Your task to perform on an android device: turn on location history Image 0: 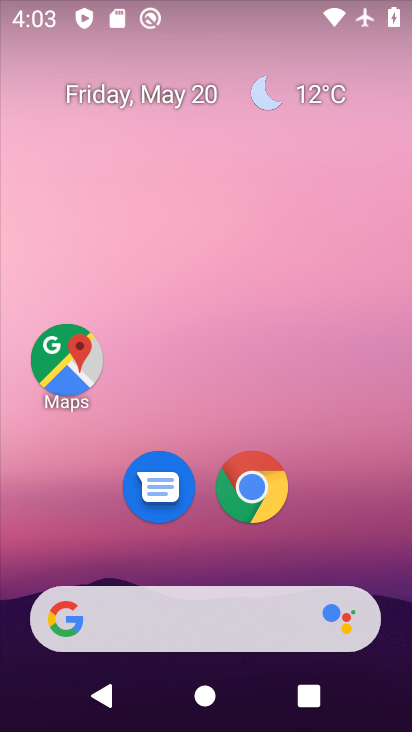
Step 0: drag from (279, 554) to (275, 134)
Your task to perform on an android device: turn on location history Image 1: 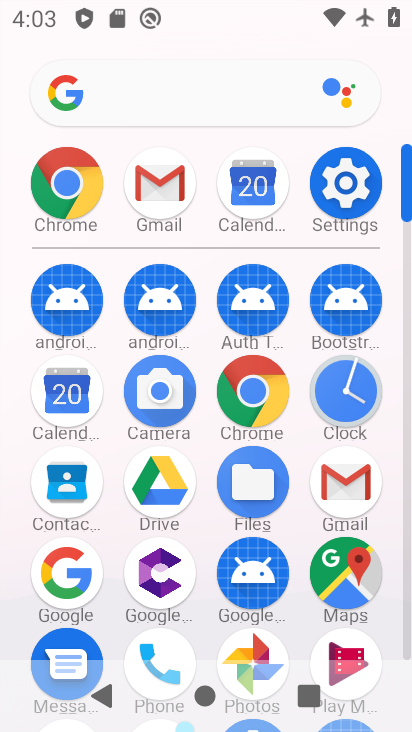
Step 1: click (353, 186)
Your task to perform on an android device: turn on location history Image 2: 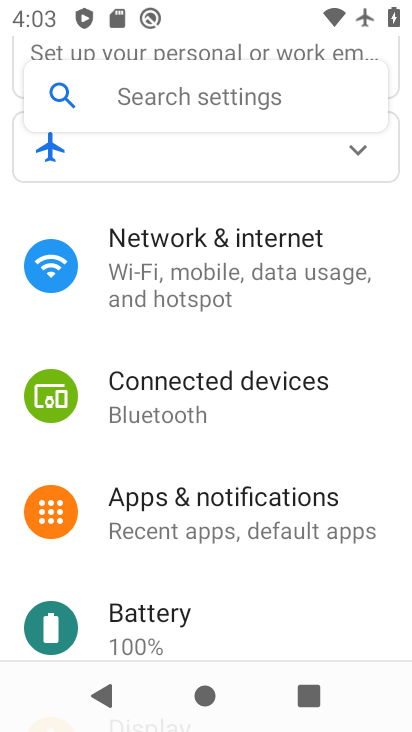
Step 2: drag from (207, 581) to (151, 24)
Your task to perform on an android device: turn on location history Image 3: 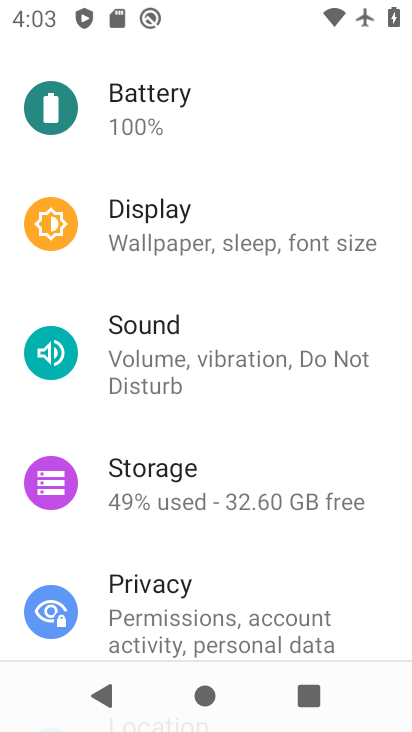
Step 3: drag from (183, 585) to (182, 71)
Your task to perform on an android device: turn on location history Image 4: 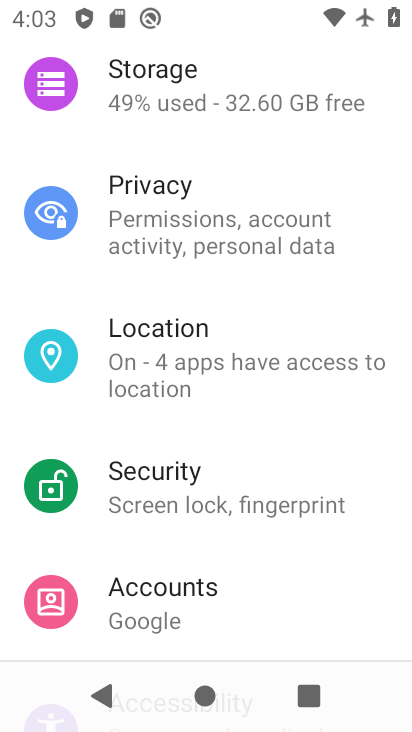
Step 4: drag from (158, 387) to (185, 0)
Your task to perform on an android device: turn on location history Image 5: 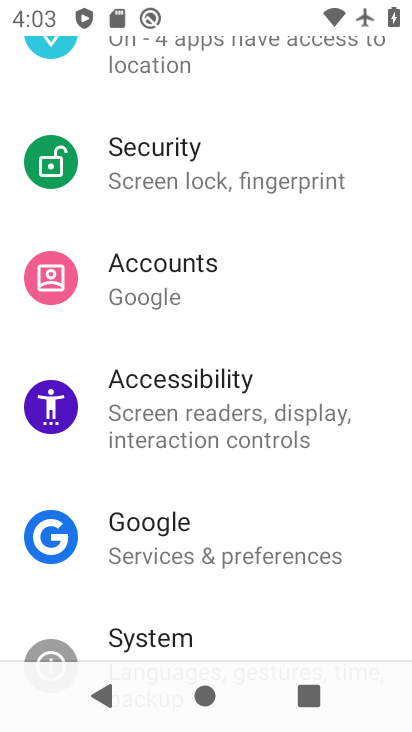
Step 5: drag from (216, 492) to (204, 47)
Your task to perform on an android device: turn on location history Image 6: 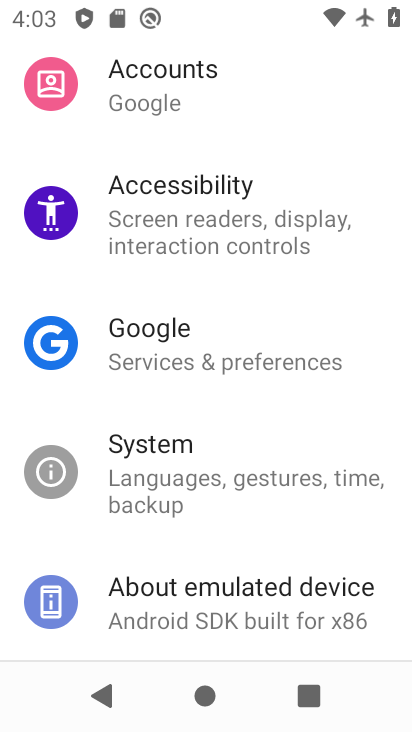
Step 6: drag from (201, 248) to (265, 642)
Your task to perform on an android device: turn on location history Image 7: 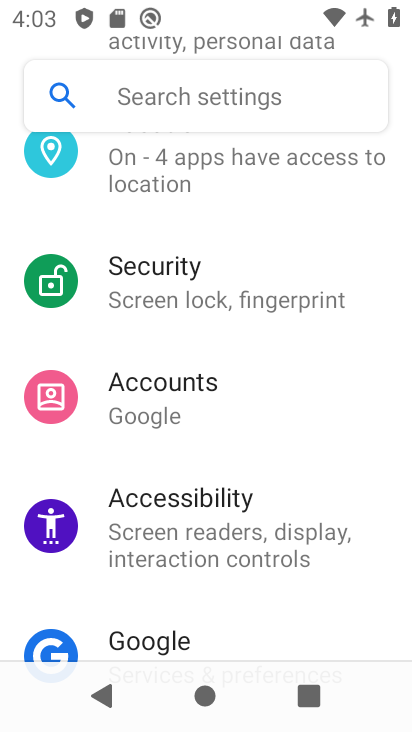
Step 7: drag from (266, 332) to (236, 614)
Your task to perform on an android device: turn on location history Image 8: 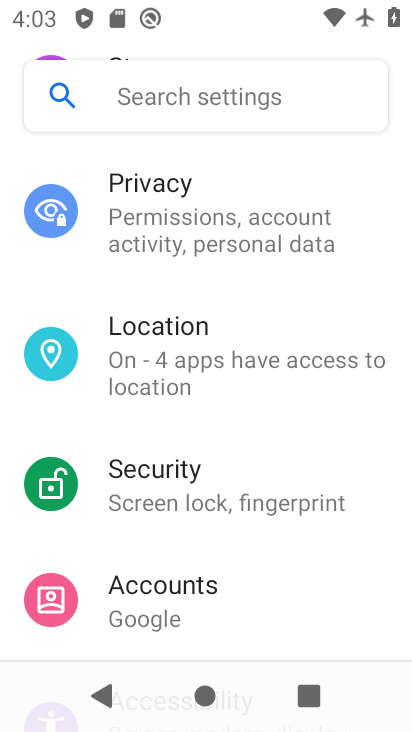
Step 8: click (167, 334)
Your task to perform on an android device: turn on location history Image 9: 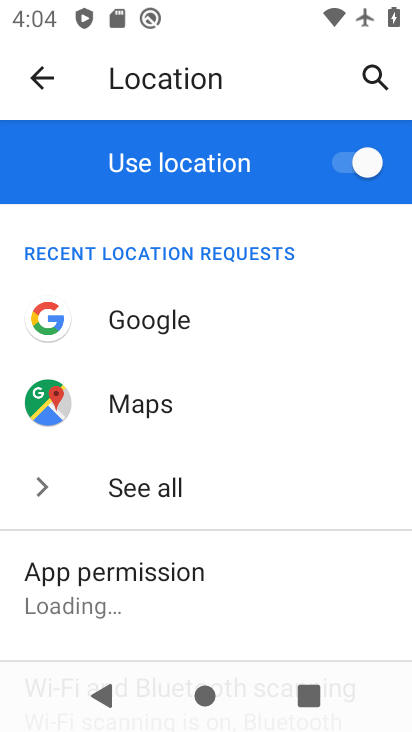
Step 9: drag from (117, 593) to (152, 298)
Your task to perform on an android device: turn on location history Image 10: 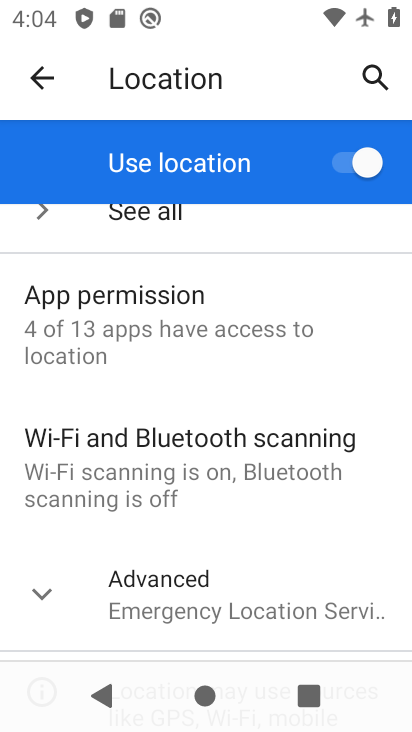
Step 10: click (143, 605)
Your task to perform on an android device: turn on location history Image 11: 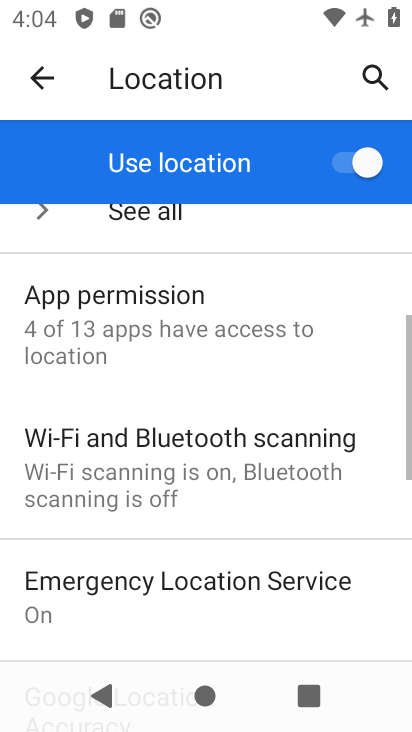
Step 11: task complete